Your task to perform on an android device: read, delete, or share a saved page in the chrome app Image 0: 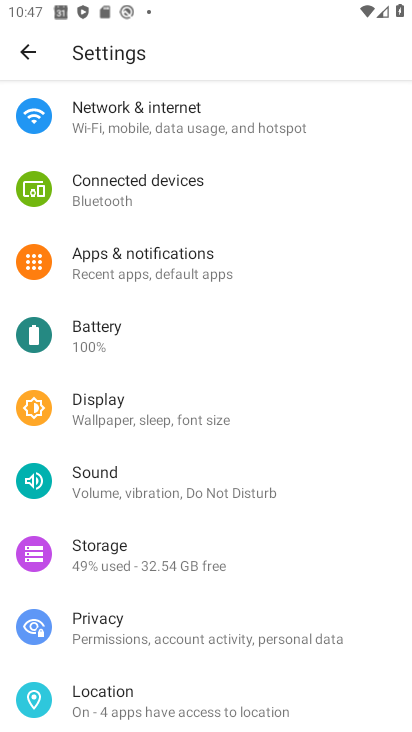
Step 0: press home button
Your task to perform on an android device: read, delete, or share a saved page in the chrome app Image 1: 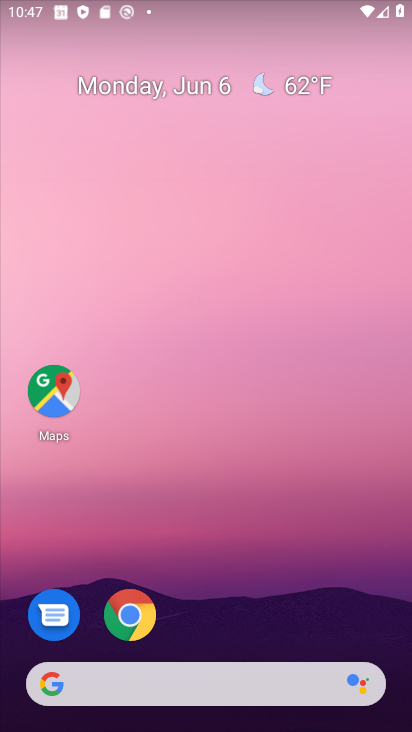
Step 1: click (136, 633)
Your task to perform on an android device: read, delete, or share a saved page in the chrome app Image 2: 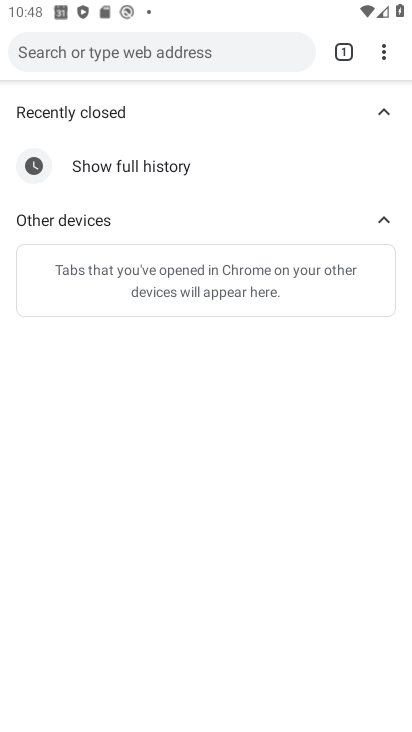
Step 2: drag from (387, 48) to (227, 401)
Your task to perform on an android device: read, delete, or share a saved page in the chrome app Image 3: 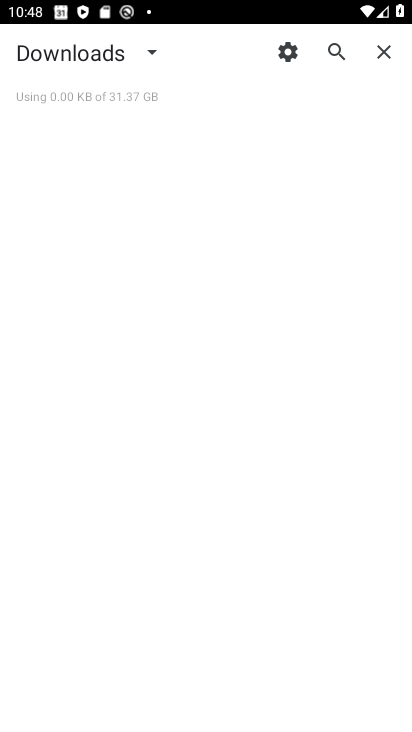
Step 3: click (112, 59)
Your task to perform on an android device: read, delete, or share a saved page in the chrome app Image 4: 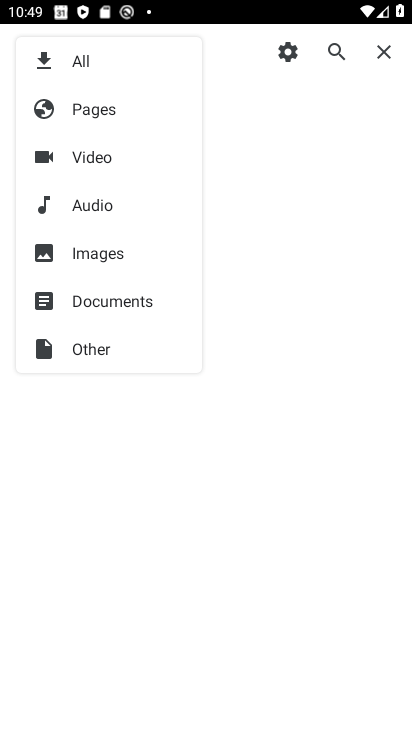
Step 4: click (69, 112)
Your task to perform on an android device: read, delete, or share a saved page in the chrome app Image 5: 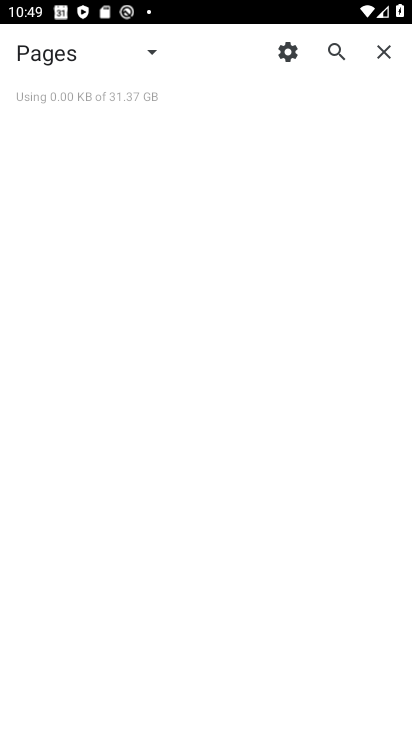
Step 5: task complete